Your task to perform on an android device: turn off priority inbox in the gmail app Image 0: 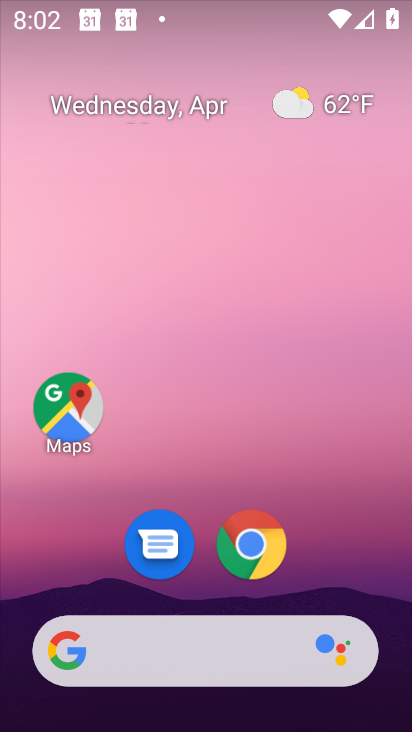
Step 0: drag from (313, 590) to (96, 129)
Your task to perform on an android device: turn off priority inbox in the gmail app Image 1: 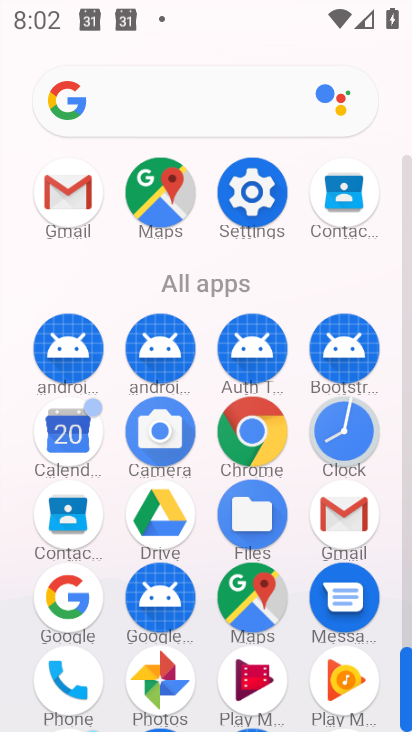
Step 1: click (62, 190)
Your task to perform on an android device: turn off priority inbox in the gmail app Image 2: 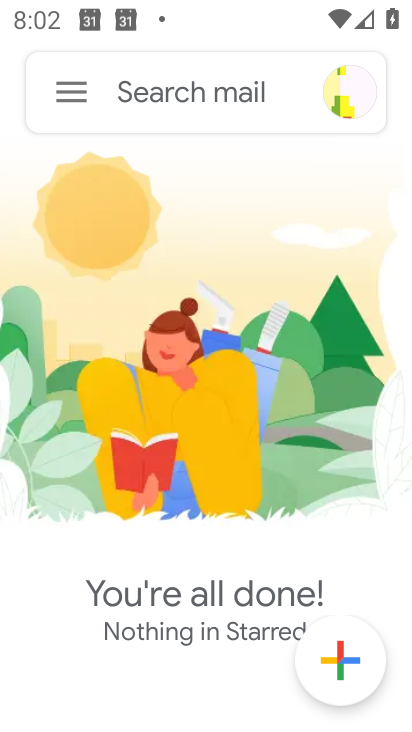
Step 2: click (64, 77)
Your task to perform on an android device: turn off priority inbox in the gmail app Image 3: 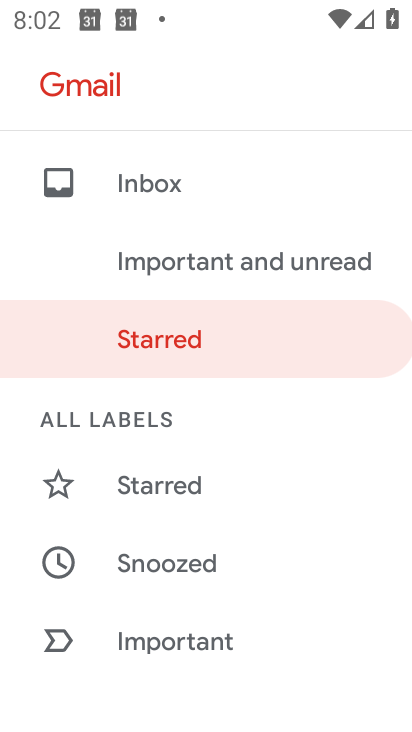
Step 3: drag from (168, 591) to (158, 226)
Your task to perform on an android device: turn off priority inbox in the gmail app Image 4: 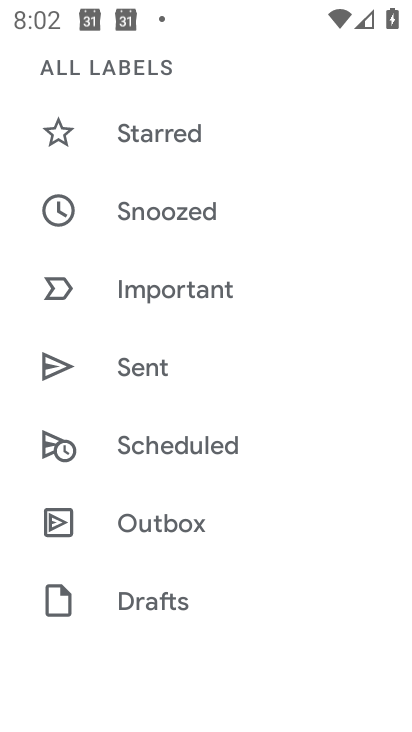
Step 4: drag from (148, 532) to (136, 285)
Your task to perform on an android device: turn off priority inbox in the gmail app Image 5: 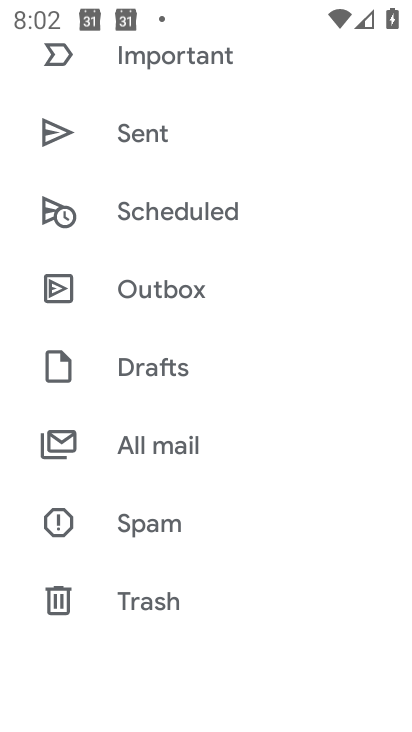
Step 5: drag from (164, 607) to (173, 282)
Your task to perform on an android device: turn off priority inbox in the gmail app Image 6: 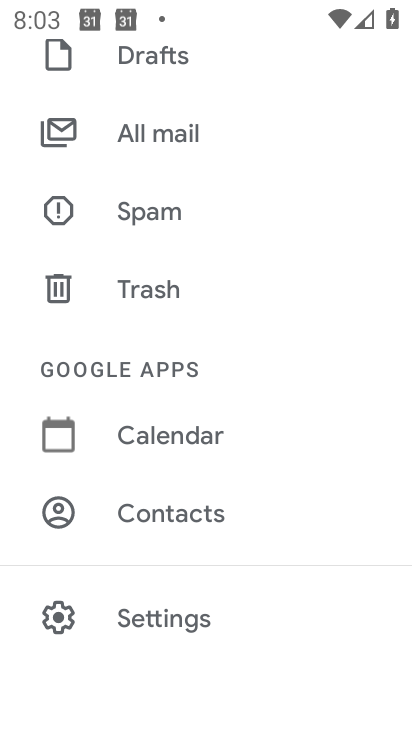
Step 6: click (142, 613)
Your task to perform on an android device: turn off priority inbox in the gmail app Image 7: 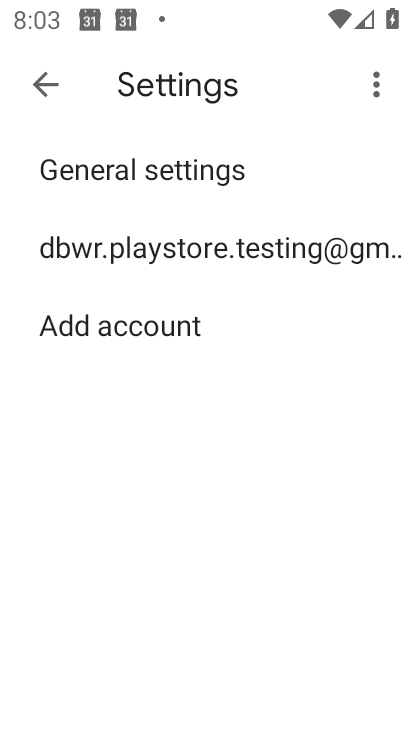
Step 7: click (216, 248)
Your task to perform on an android device: turn off priority inbox in the gmail app Image 8: 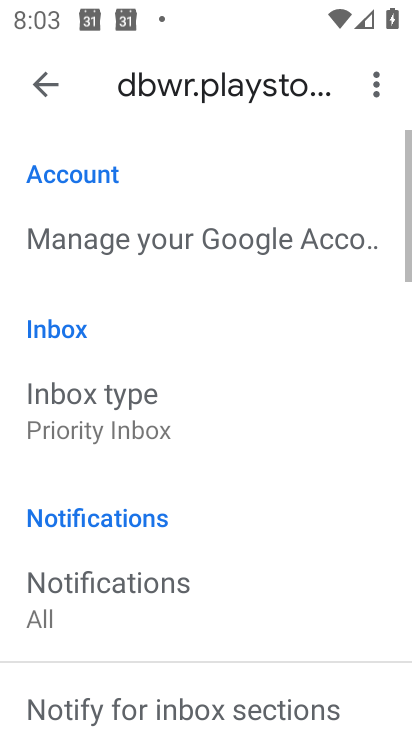
Step 8: click (103, 405)
Your task to perform on an android device: turn off priority inbox in the gmail app Image 9: 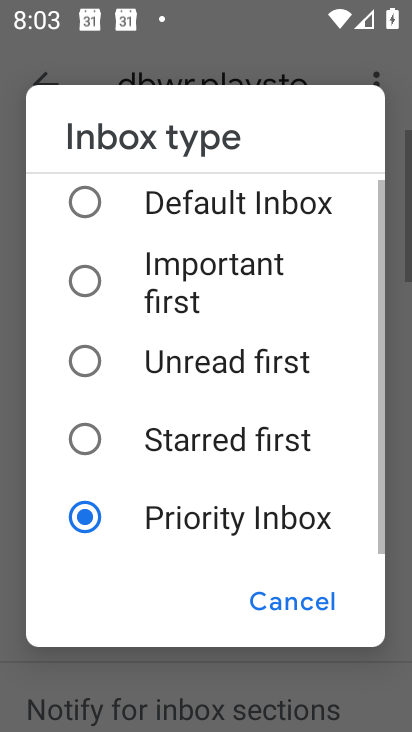
Step 9: click (152, 204)
Your task to perform on an android device: turn off priority inbox in the gmail app Image 10: 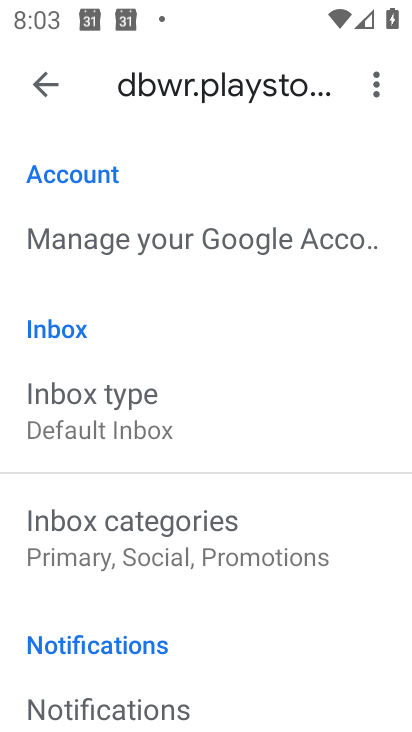
Step 10: task complete